Your task to perform on an android device: Open settings Image 0: 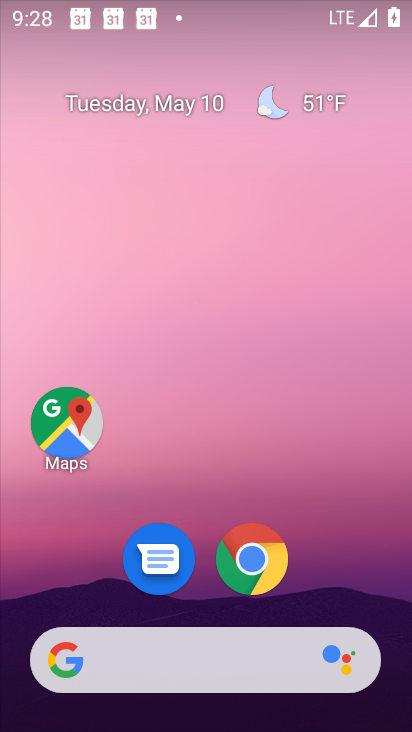
Step 0: drag from (333, 556) to (267, 130)
Your task to perform on an android device: Open settings Image 1: 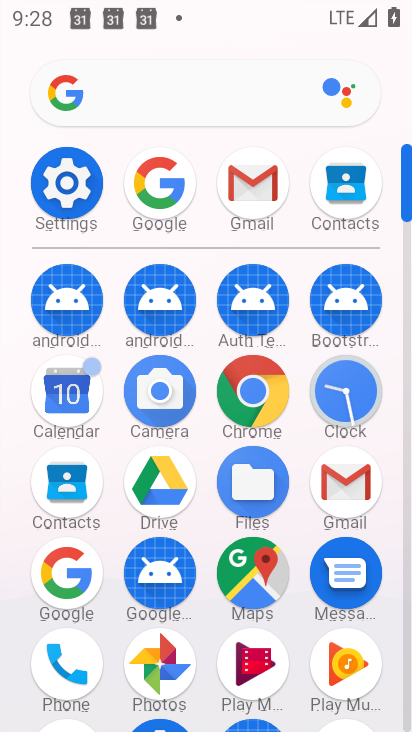
Step 1: click (69, 183)
Your task to perform on an android device: Open settings Image 2: 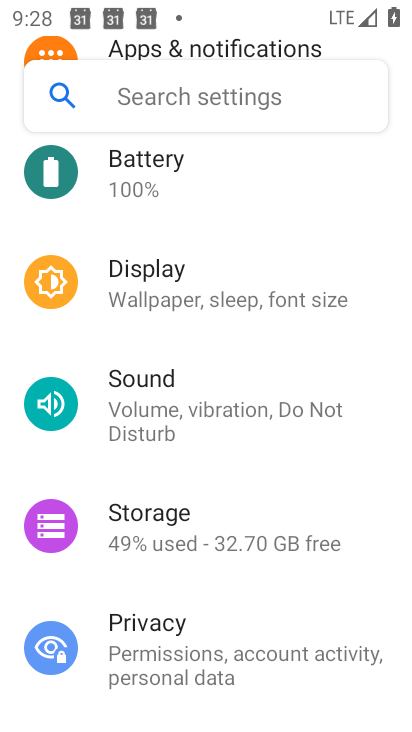
Step 2: task complete